Your task to perform on an android device: Open eBay Image 0: 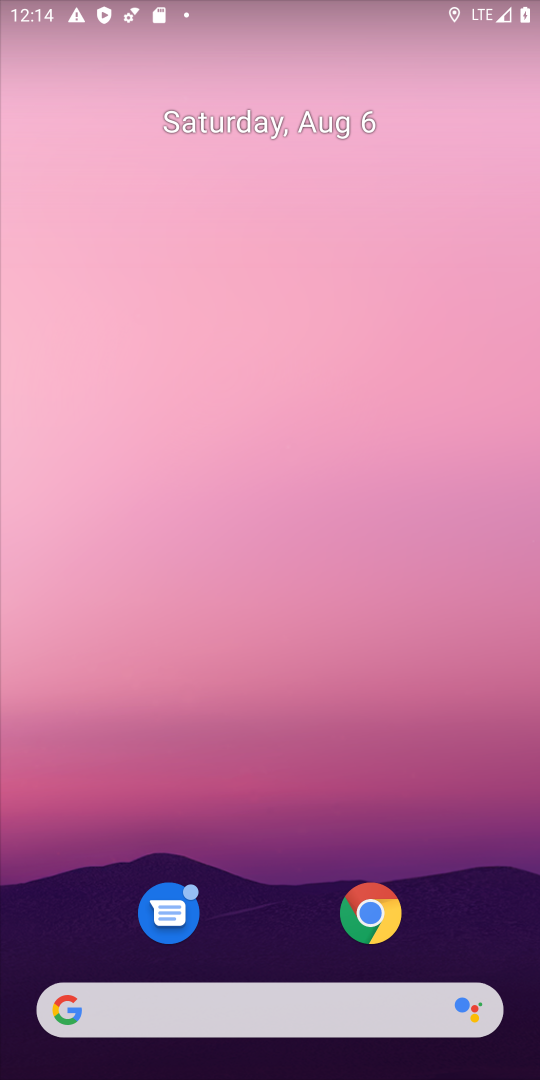
Step 0: drag from (450, 914) to (524, 380)
Your task to perform on an android device: Open eBay Image 1: 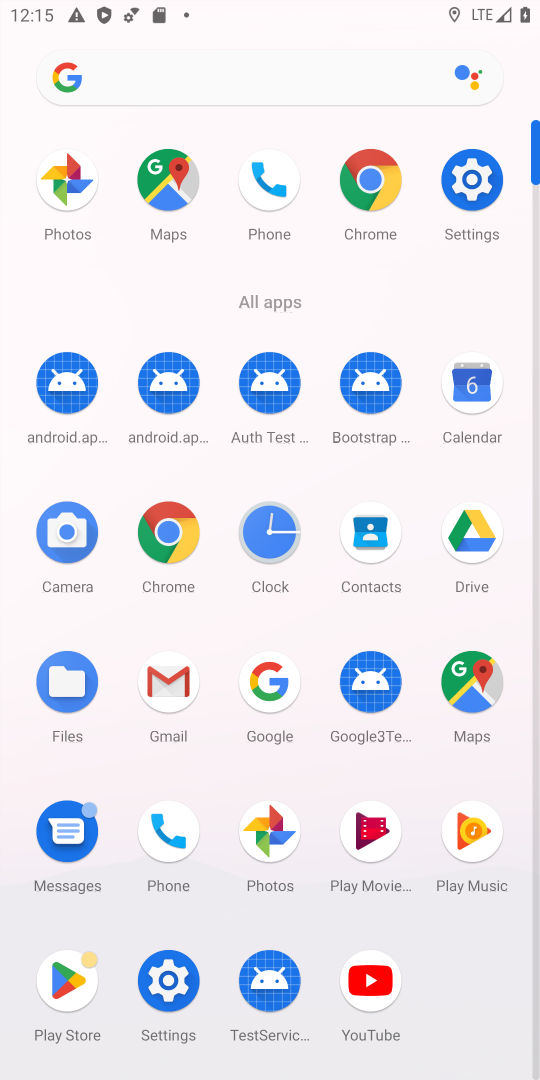
Step 1: click (385, 181)
Your task to perform on an android device: Open eBay Image 2: 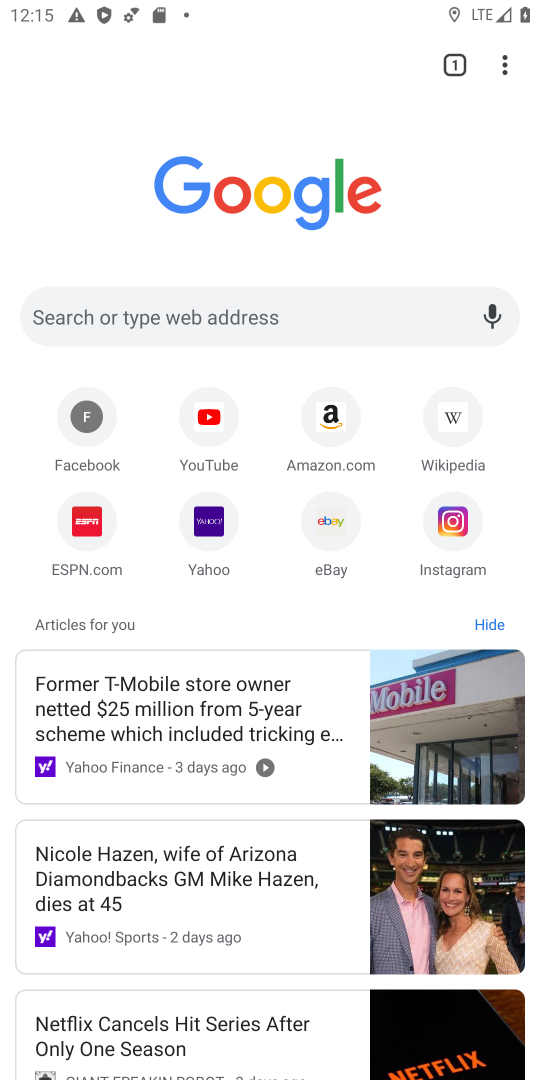
Step 2: click (306, 299)
Your task to perform on an android device: Open eBay Image 3: 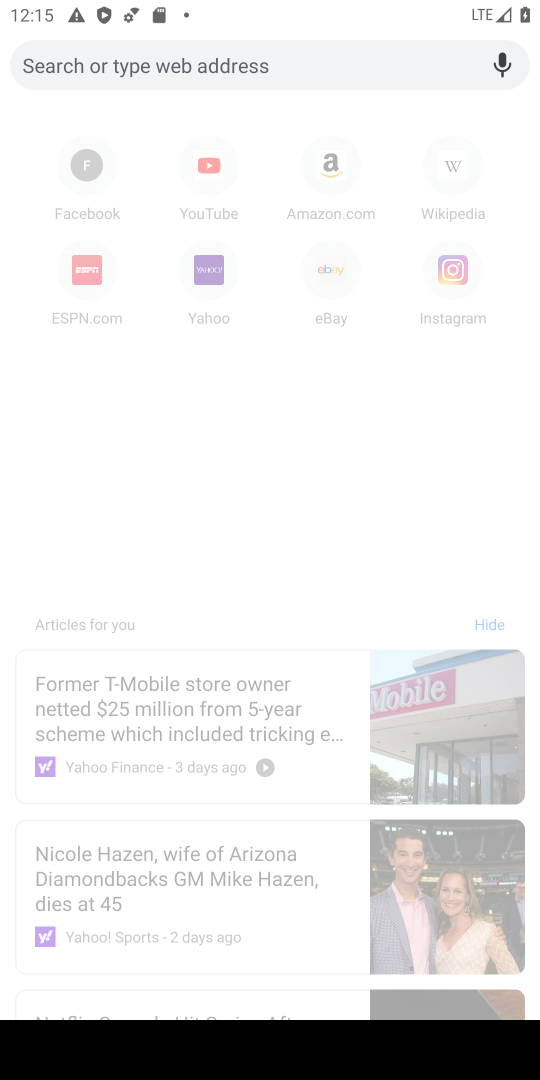
Step 3: click (284, 69)
Your task to perform on an android device: Open eBay Image 4: 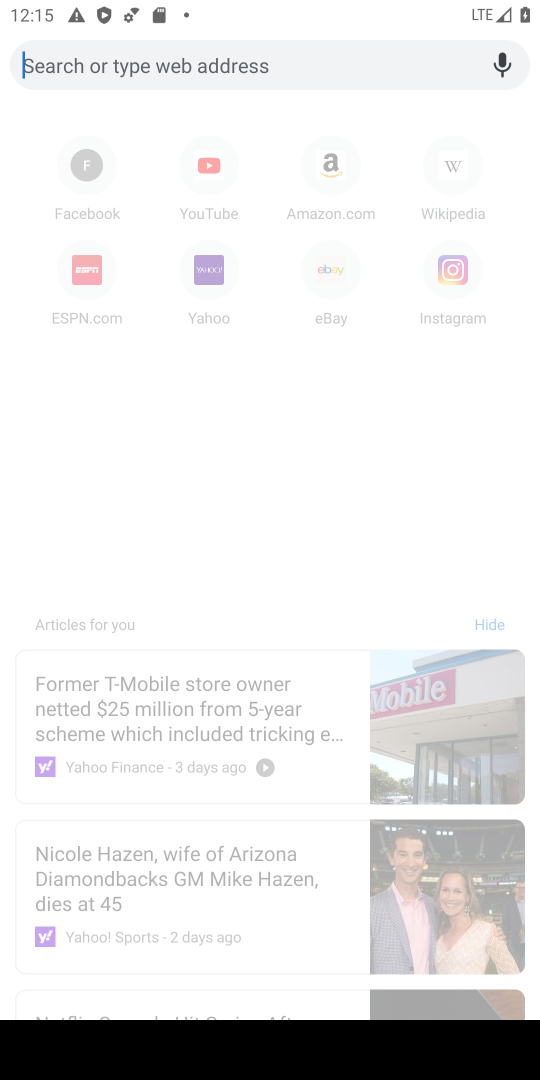
Step 4: type "ebay"
Your task to perform on an android device: Open eBay Image 5: 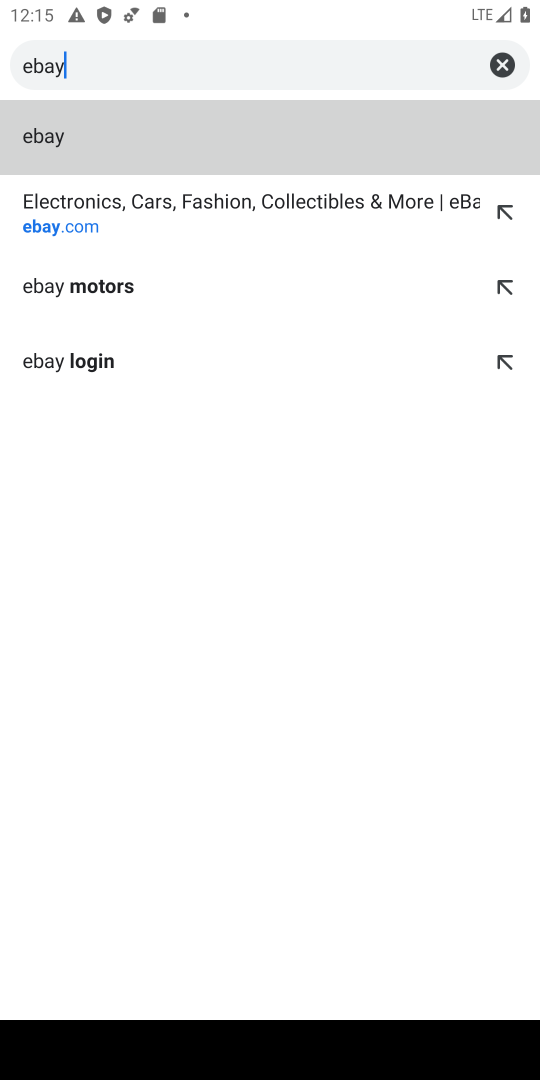
Step 5: click (330, 214)
Your task to perform on an android device: Open eBay Image 6: 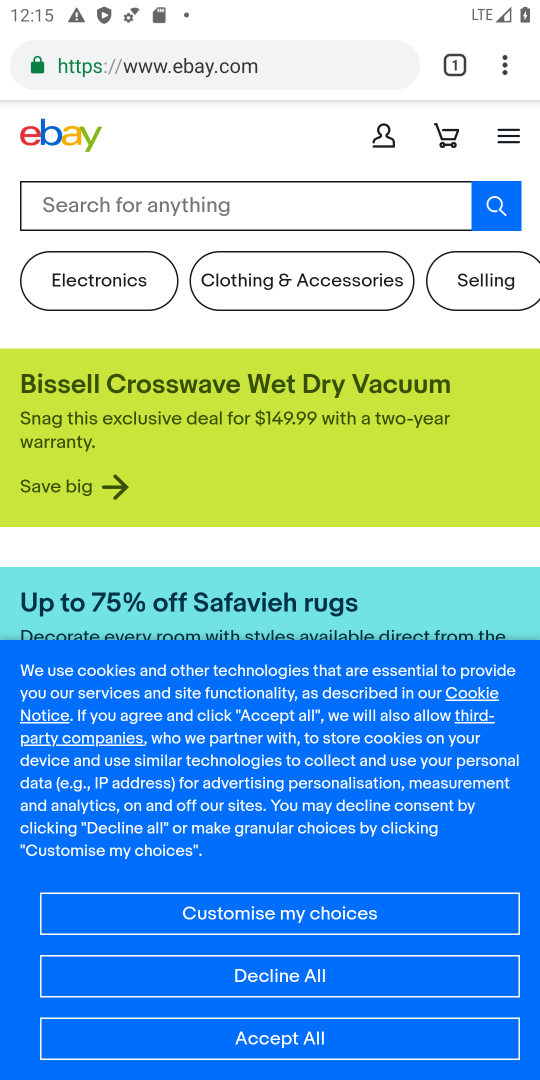
Step 6: task complete